Your task to perform on an android device: see tabs open on other devices in the chrome app Image 0: 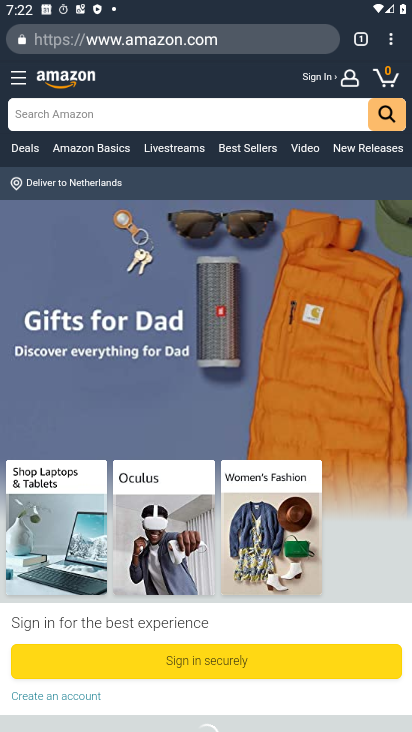
Step 0: press home button
Your task to perform on an android device: see tabs open on other devices in the chrome app Image 1: 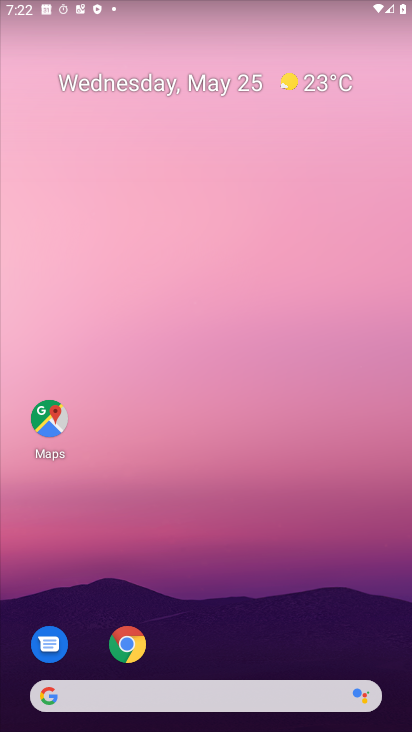
Step 1: drag from (232, 707) to (234, 204)
Your task to perform on an android device: see tabs open on other devices in the chrome app Image 2: 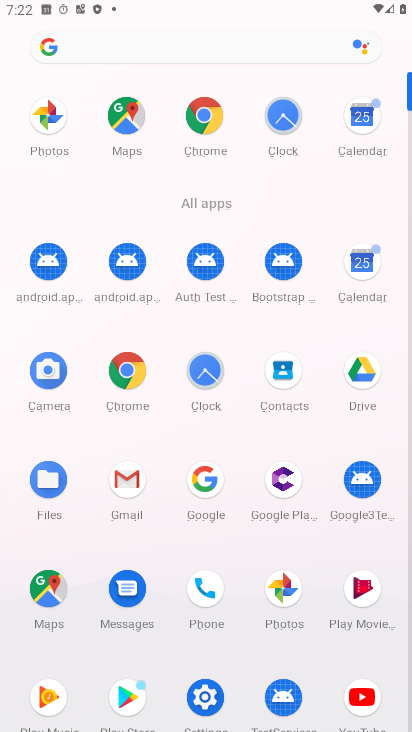
Step 2: click (205, 127)
Your task to perform on an android device: see tabs open on other devices in the chrome app Image 3: 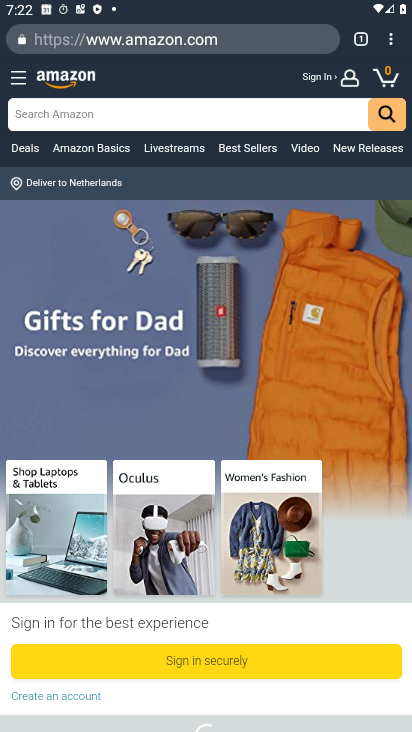
Step 3: click (358, 47)
Your task to perform on an android device: see tabs open on other devices in the chrome app Image 4: 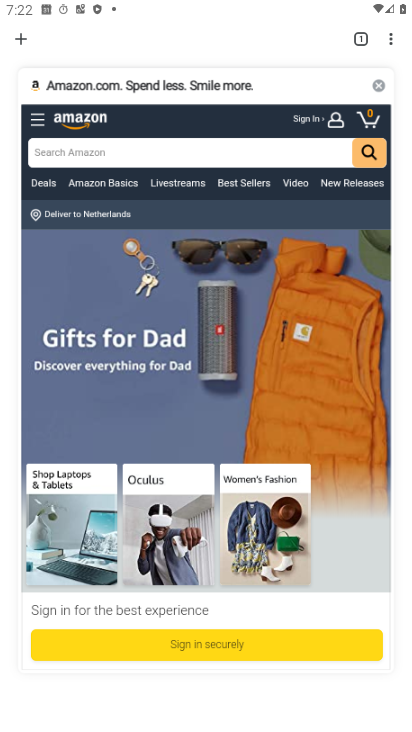
Step 4: click (16, 31)
Your task to perform on an android device: see tabs open on other devices in the chrome app Image 5: 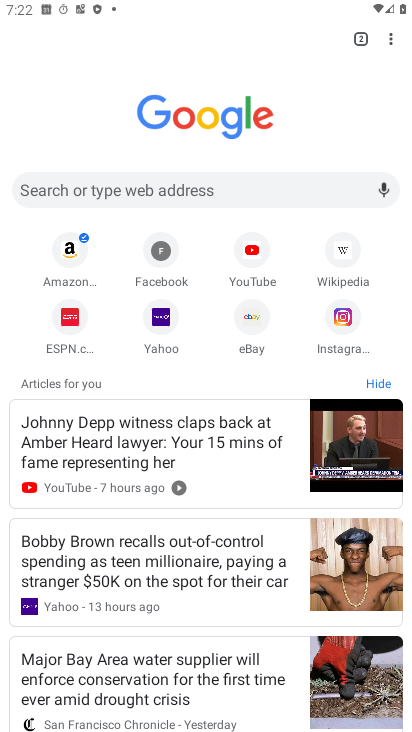
Step 5: task complete